Your task to perform on an android device: change keyboard looks Image 0: 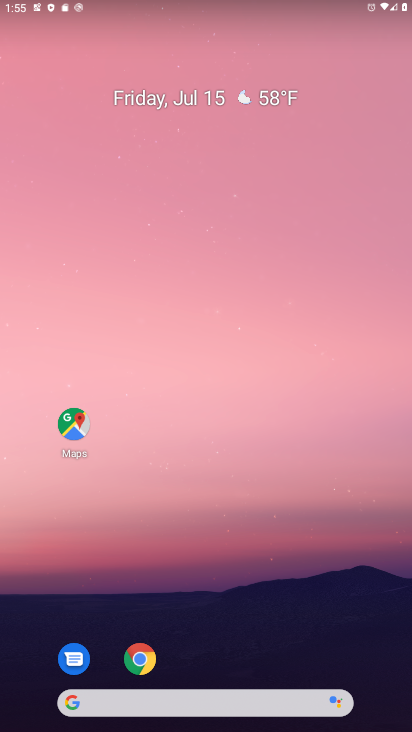
Step 0: drag from (227, 725) to (249, 63)
Your task to perform on an android device: change keyboard looks Image 1: 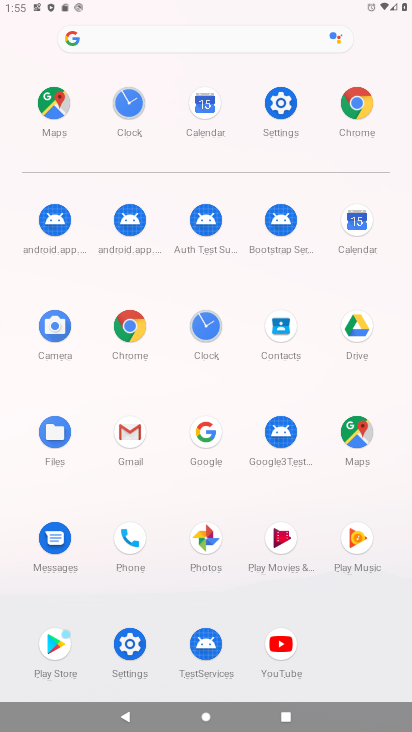
Step 1: click (274, 99)
Your task to perform on an android device: change keyboard looks Image 2: 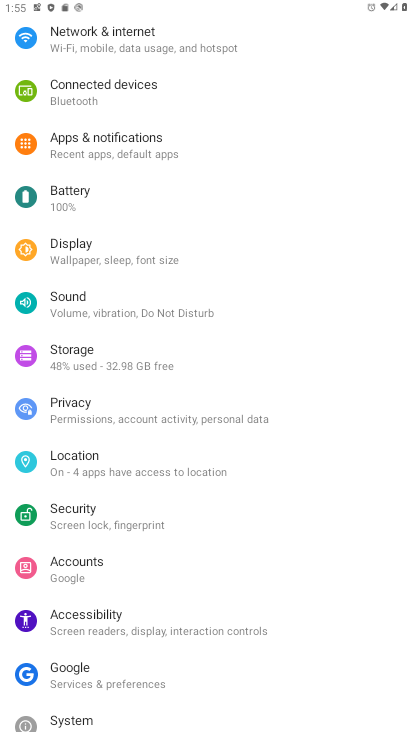
Step 2: click (61, 719)
Your task to perform on an android device: change keyboard looks Image 3: 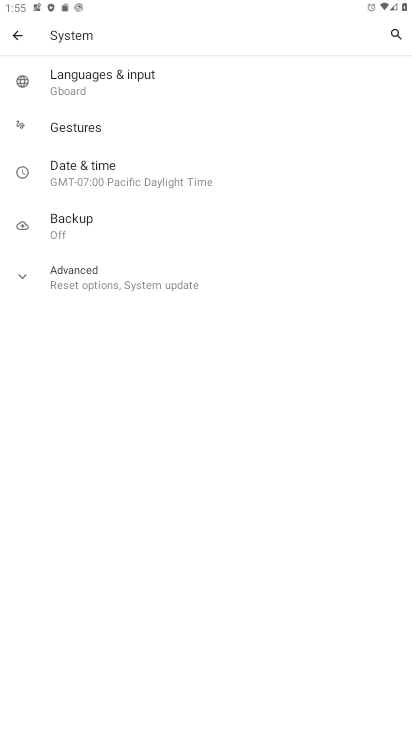
Step 3: click (73, 71)
Your task to perform on an android device: change keyboard looks Image 4: 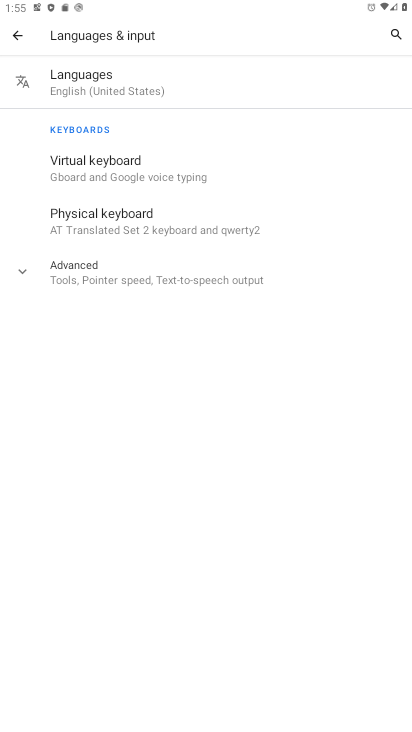
Step 4: click (73, 161)
Your task to perform on an android device: change keyboard looks Image 5: 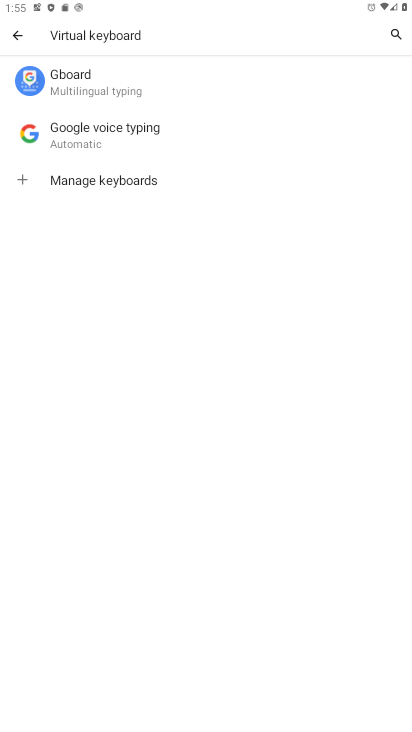
Step 5: click (64, 80)
Your task to perform on an android device: change keyboard looks Image 6: 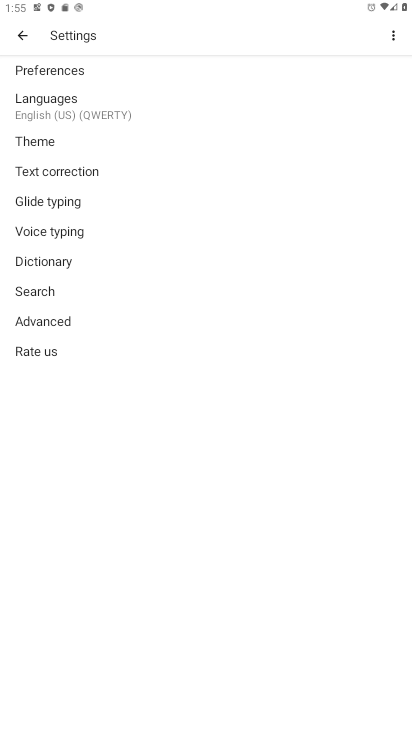
Step 6: click (38, 136)
Your task to perform on an android device: change keyboard looks Image 7: 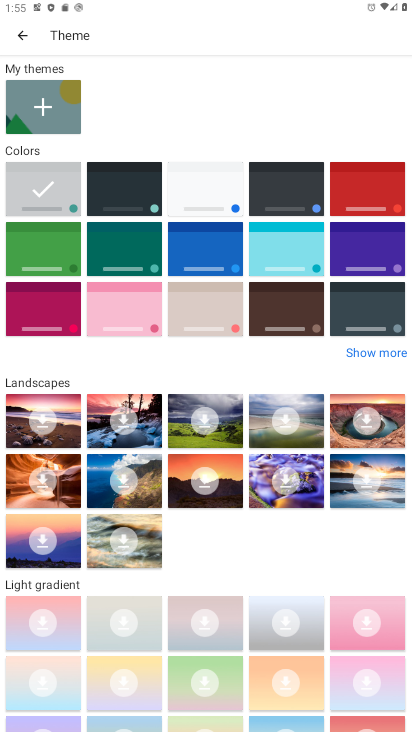
Step 7: click (299, 199)
Your task to perform on an android device: change keyboard looks Image 8: 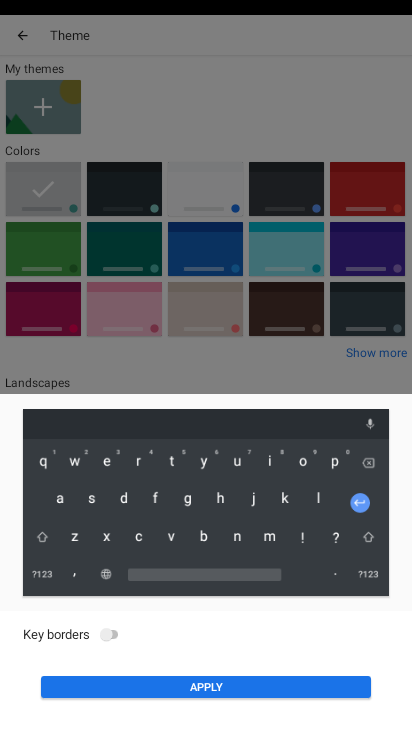
Step 8: click (111, 634)
Your task to perform on an android device: change keyboard looks Image 9: 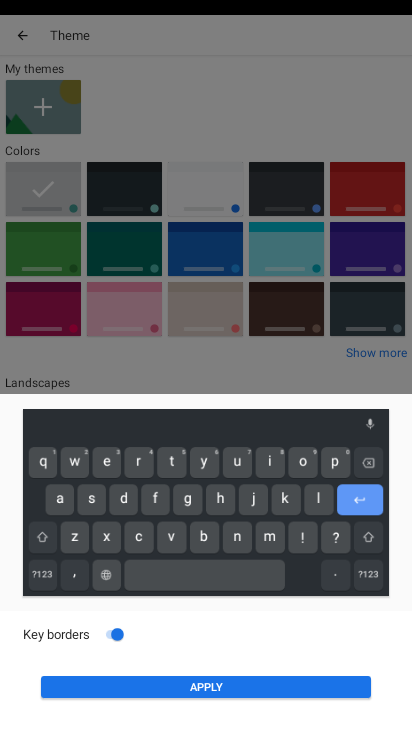
Step 9: click (220, 694)
Your task to perform on an android device: change keyboard looks Image 10: 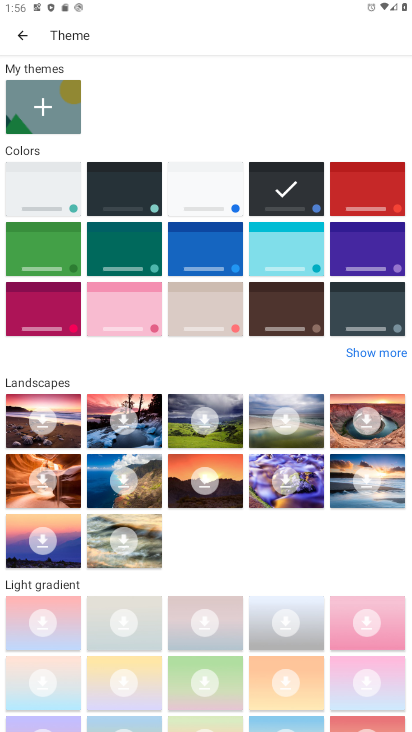
Step 10: task complete